Your task to perform on an android device: delete the emails in spam in the gmail app Image 0: 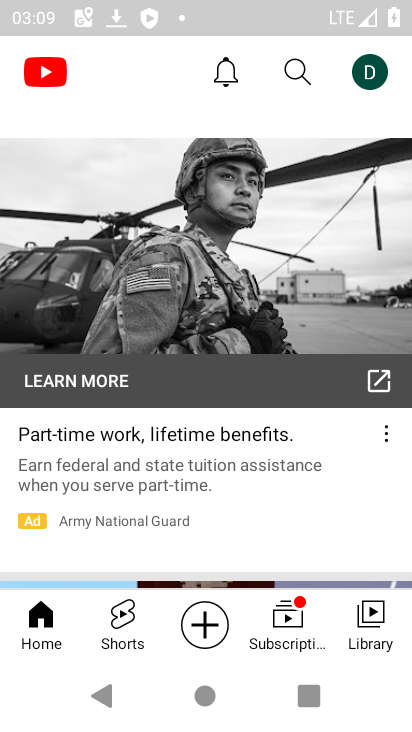
Step 0: press home button
Your task to perform on an android device: delete the emails in spam in the gmail app Image 1: 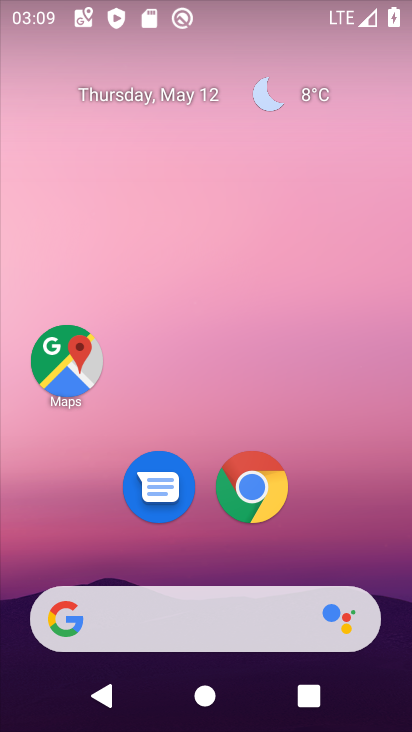
Step 1: drag from (360, 533) to (325, 160)
Your task to perform on an android device: delete the emails in spam in the gmail app Image 2: 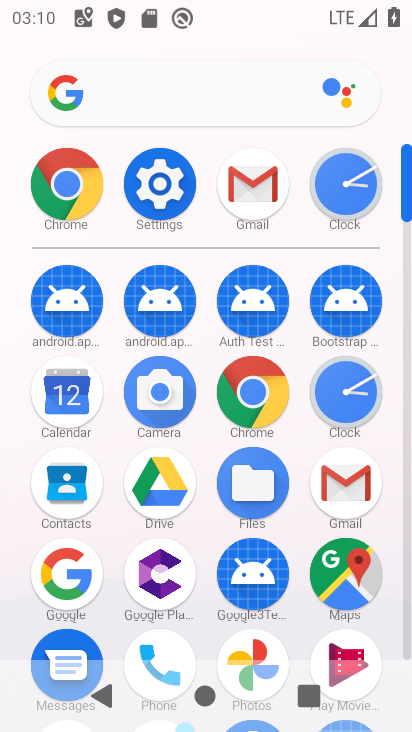
Step 2: click (254, 194)
Your task to perform on an android device: delete the emails in spam in the gmail app Image 3: 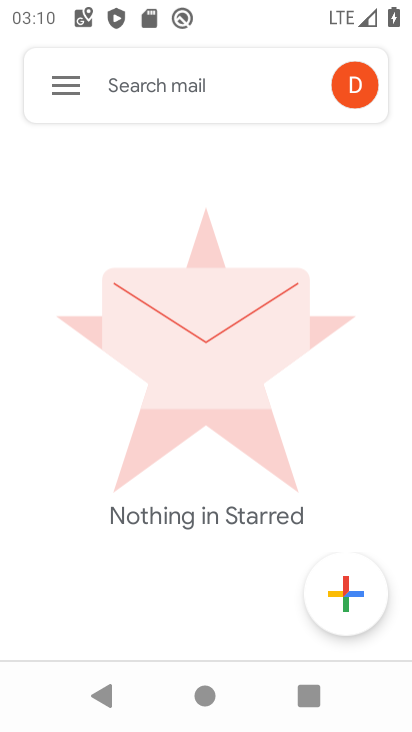
Step 3: click (68, 85)
Your task to perform on an android device: delete the emails in spam in the gmail app Image 4: 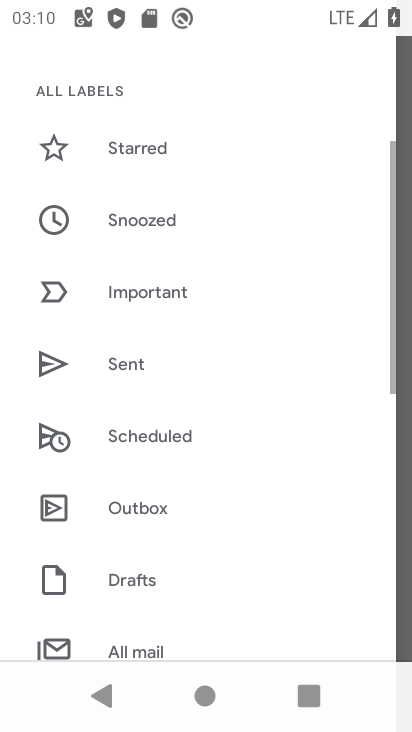
Step 4: drag from (173, 542) to (354, 154)
Your task to perform on an android device: delete the emails in spam in the gmail app Image 5: 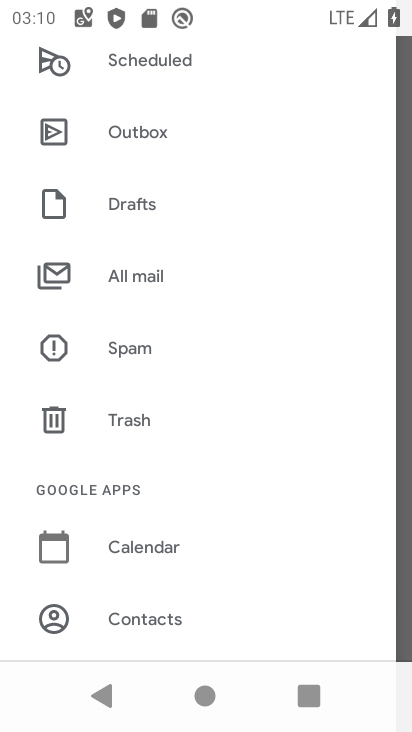
Step 5: drag from (194, 493) to (291, 181)
Your task to perform on an android device: delete the emails in spam in the gmail app Image 6: 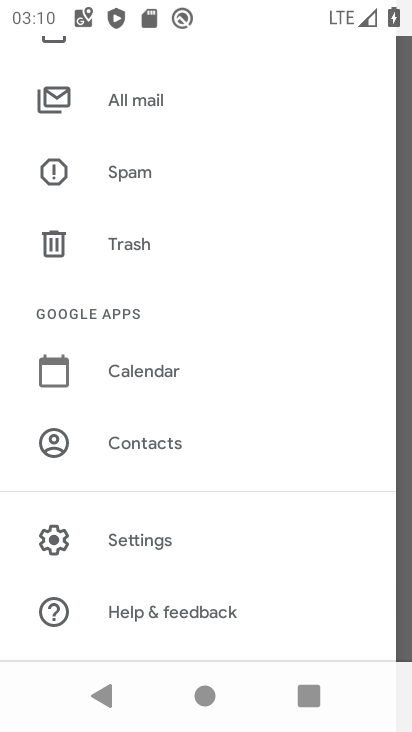
Step 6: drag from (181, 348) to (165, 571)
Your task to perform on an android device: delete the emails in spam in the gmail app Image 7: 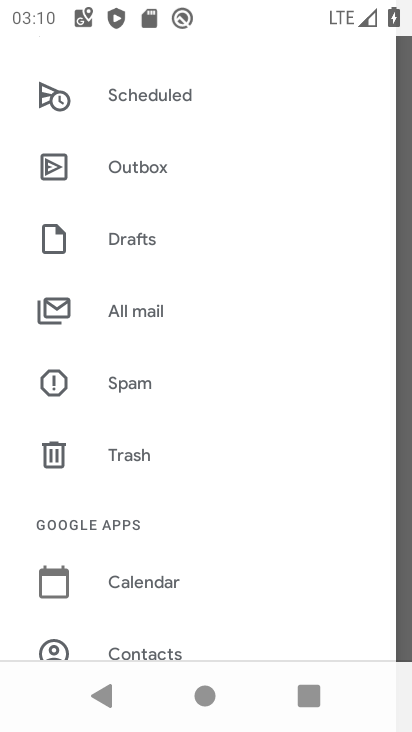
Step 7: drag from (134, 314) to (133, 581)
Your task to perform on an android device: delete the emails in spam in the gmail app Image 8: 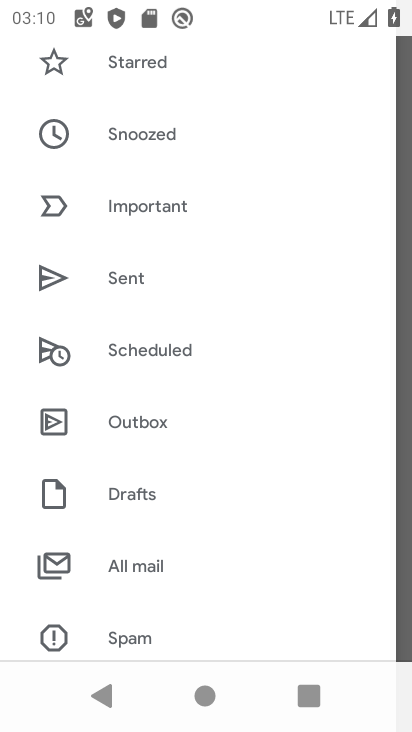
Step 8: drag from (203, 358) to (159, 563)
Your task to perform on an android device: delete the emails in spam in the gmail app Image 9: 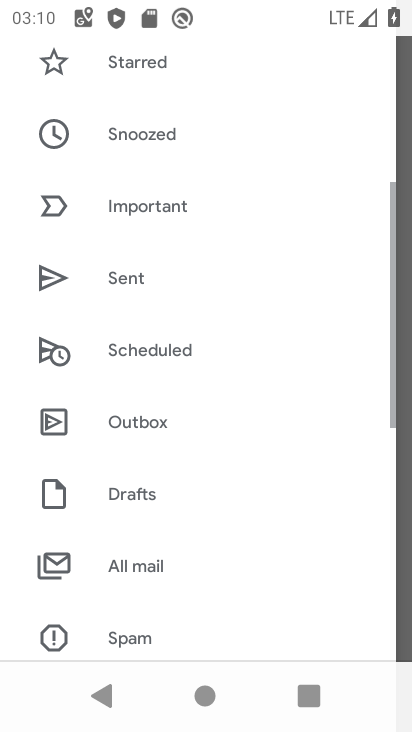
Step 9: drag from (111, 355) to (70, 631)
Your task to perform on an android device: delete the emails in spam in the gmail app Image 10: 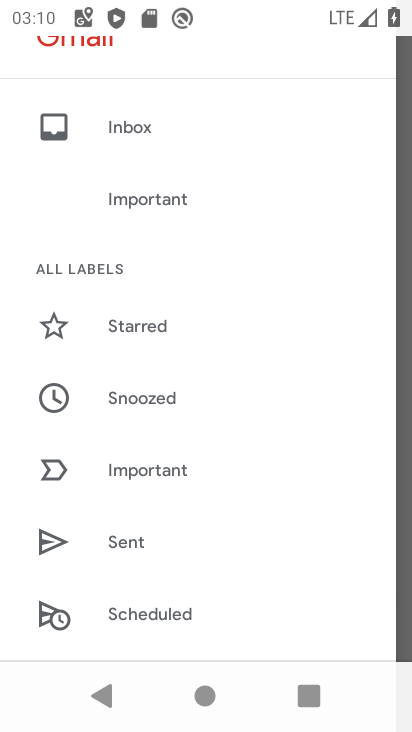
Step 10: drag from (134, 604) to (255, 207)
Your task to perform on an android device: delete the emails in spam in the gmail app Image 11: 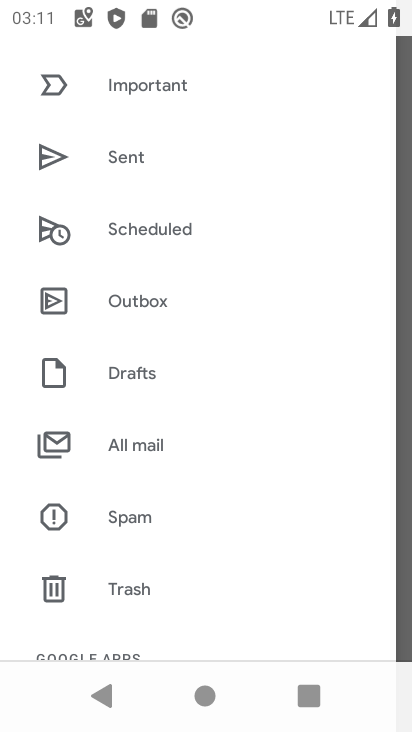
Step 11: click (119, 517)
Your task to perform on an android device: delete the emails in spam in the gmail app Image 12: 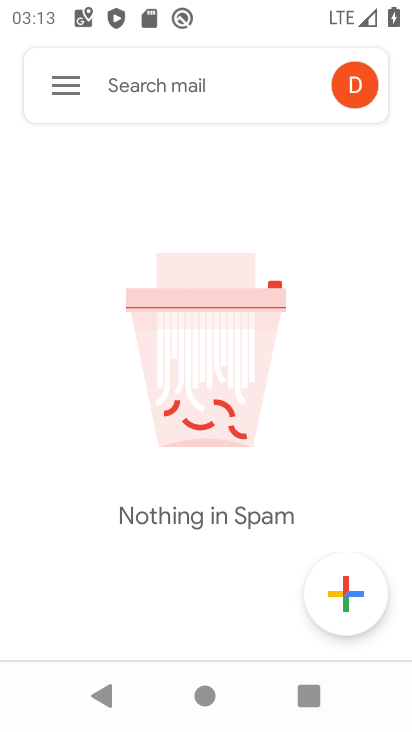
Step 12: task complete